Your task to perform on an android device: turn smart compose on in the gmail app Image 0: 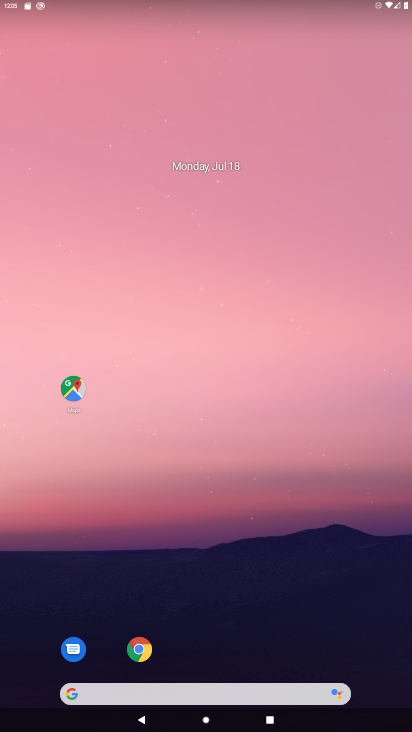
Step 0: drag from (203, 649) to (242, 162)
Your task to perform on an android device: turn smart compose on in the gmail app Image 1: 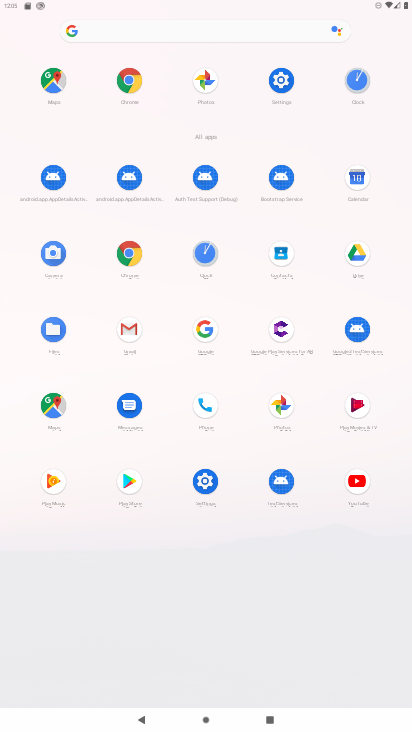
Step 1: click (123, 340)
Your task to perform on an android device: turn smart compose on in the gmail app Image 2: 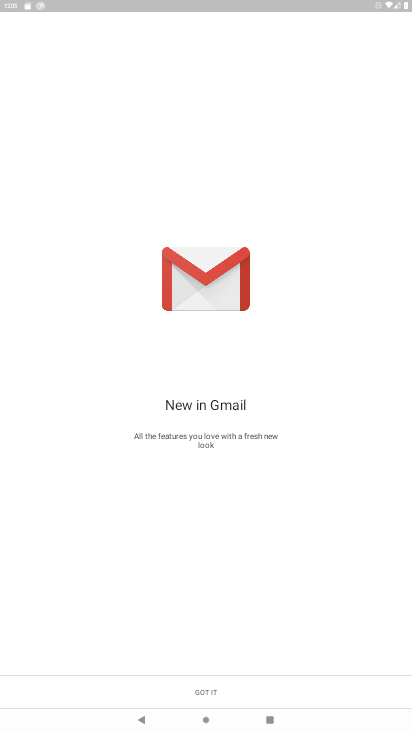
Step 2: click (180, 684)
Your task to perform on an android device: turn smart compose on in the gmail app Image 3: 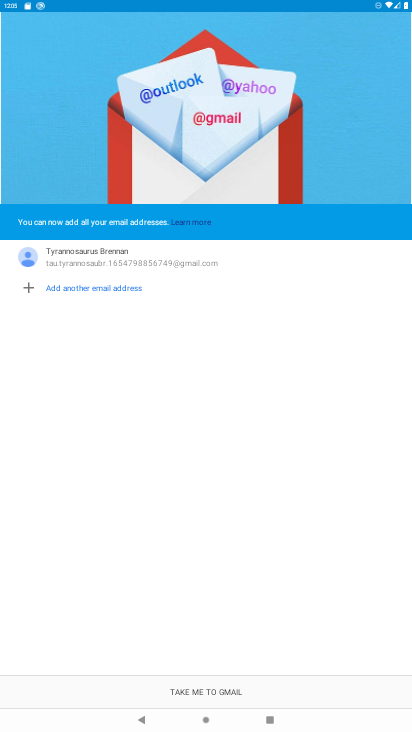
Step 3: click (180, 684)
Your task to perform on an android device: turn smart compose on in the gmail app Image 4: 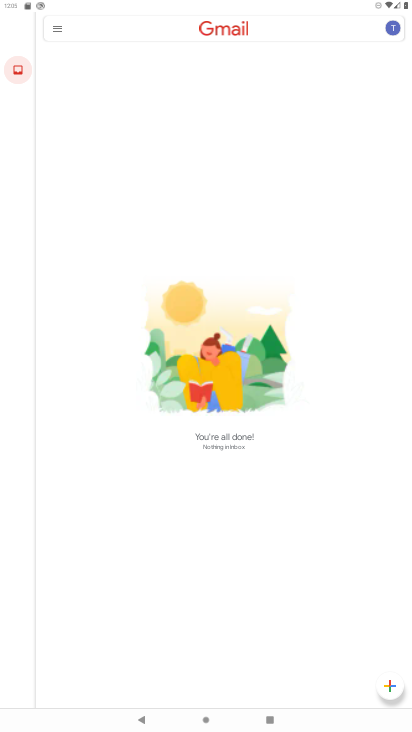
Step 4: click (24, 29)
Your task to perform on an android device: turn smart compose on in the gmail app Image 5: 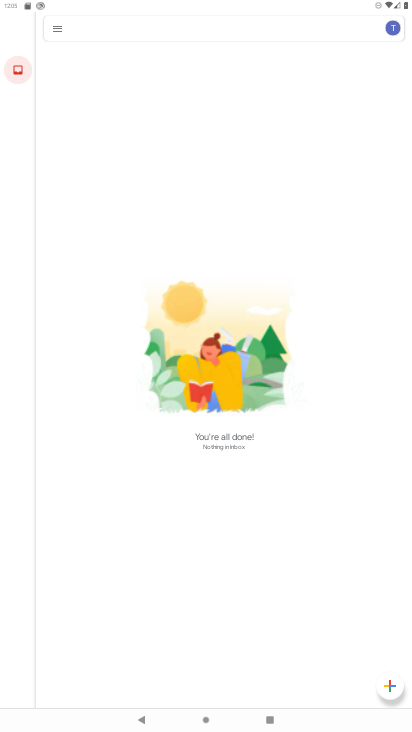
Step 5: click (52, 33)
Your task to perform on an android device: turn smart compose on in the gmail app Image 6: 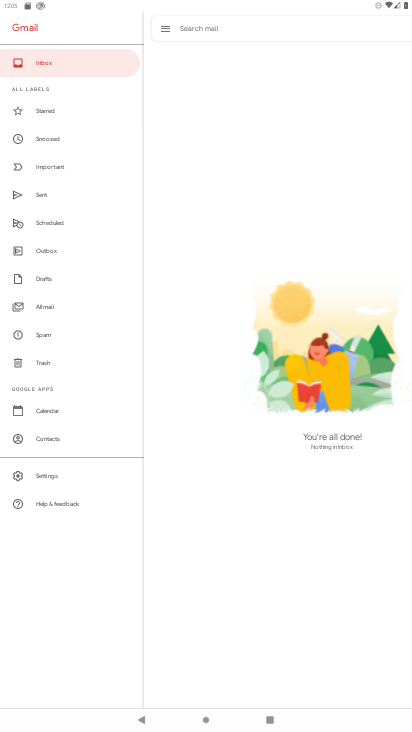
Step 6: click (50, 480)
Your task to perform on an android device: turn smart compose on in the gmail app Image 7: 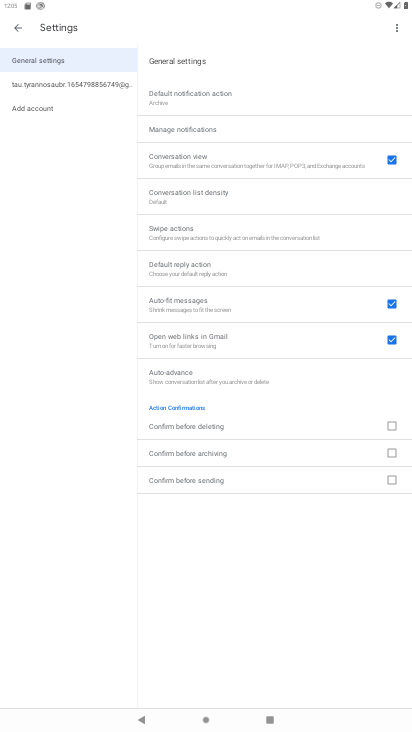
Step 7: click (105, 93)
Your task to perform on an android device: turn smart compose on in the gmail app Image 8: 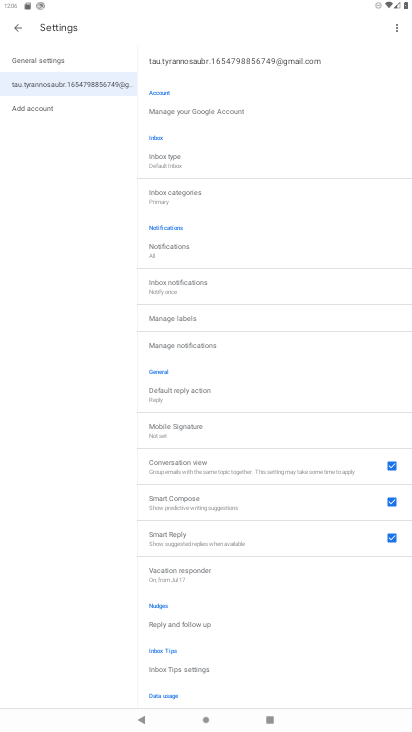
Step 8: task complete